Your task to perform on an android device: add a contact Image 0: 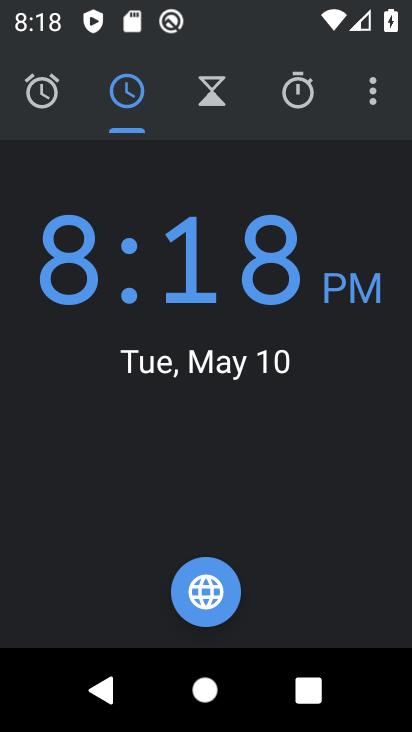
Step 0: press back button
Your task to perform on an android device: add a contact Image 1: 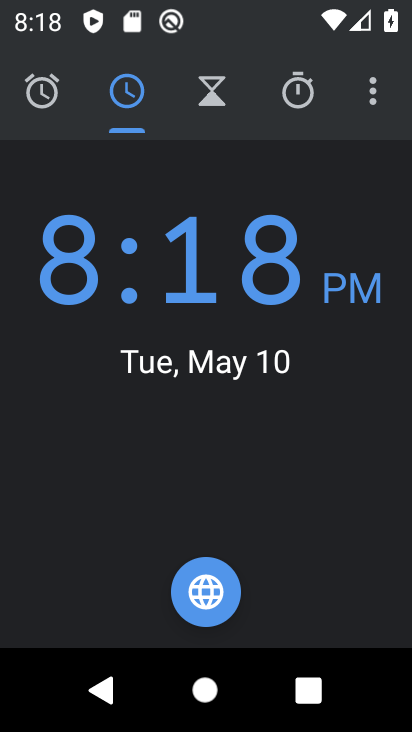
Step 1: press back button
Your task to perform on an android device: add a contact Image 2: 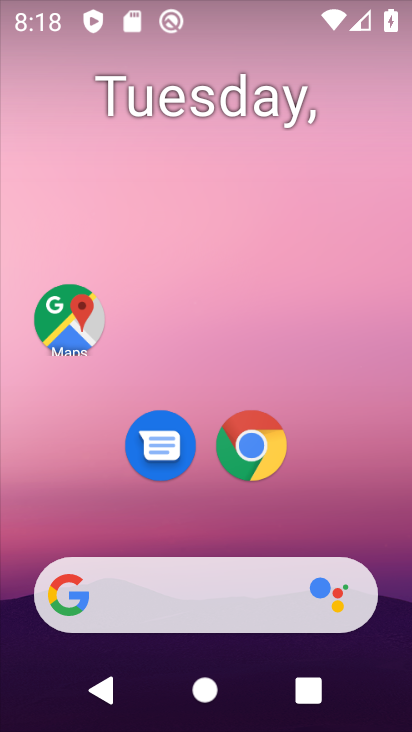
Step 2: drag from (351, 541) to (50, 25)
Your task to perform on an android device: add a contact Image 3: 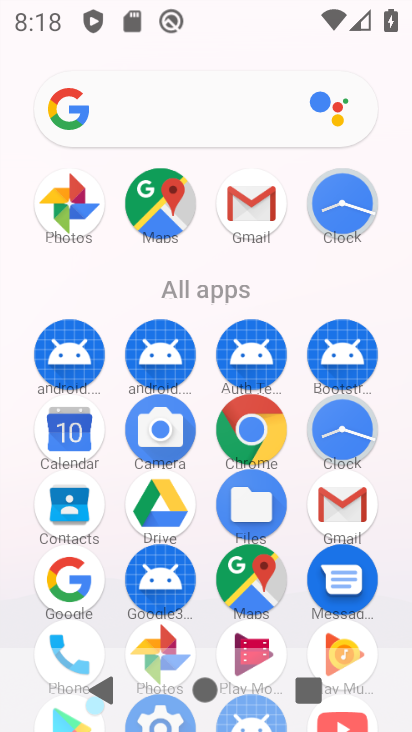
Step 3: click (74, 497)
Your task to perform on an android device: add a contact Image 4: 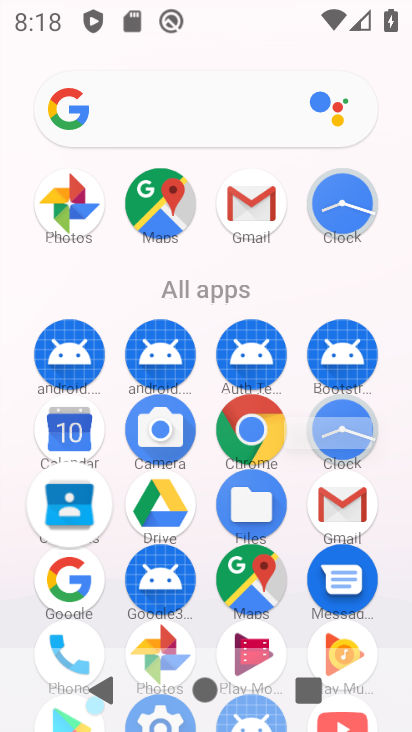
Step 4: click (67, 510)
Your task to perform on an android device: add a contact Image 5: 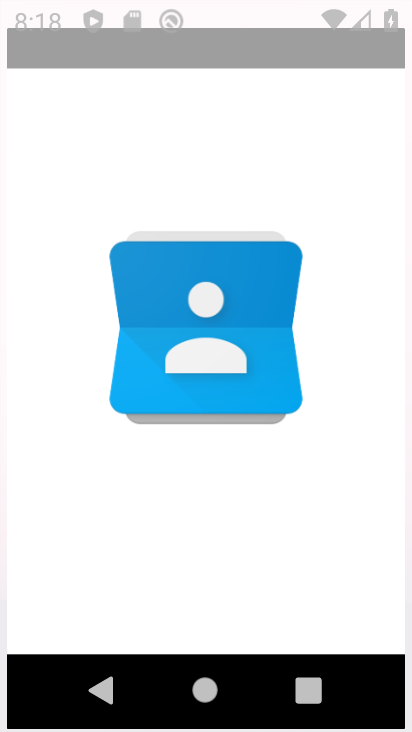
Step 5: click (67, 512)
Your task to perform on an android device: add a contact Image 6: 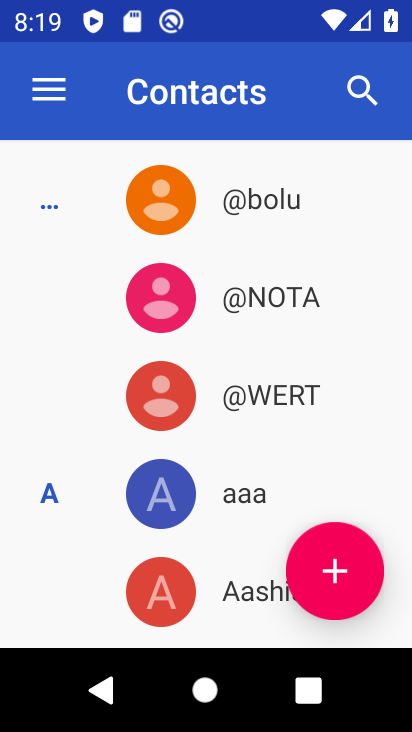
Step 6: click (335, 568)
Your task to perform on an android device: add a contact Image 7: 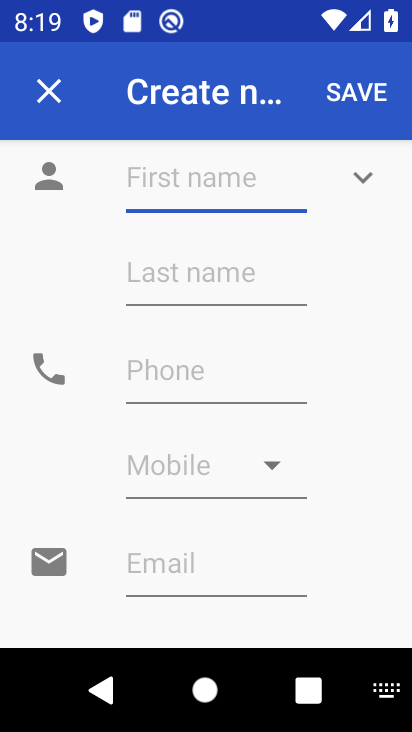
Step 7: type "new"
Your task to perform on an android device: add a contact Image 8: 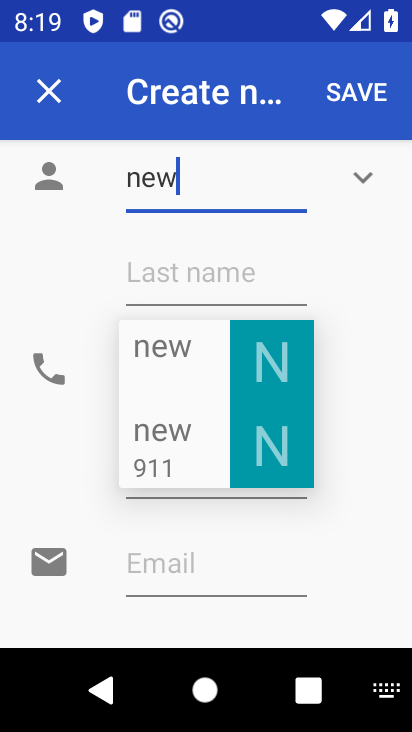
Step 8: click (168, 374)
Your task to perform on an android device: add a contact Image 9: 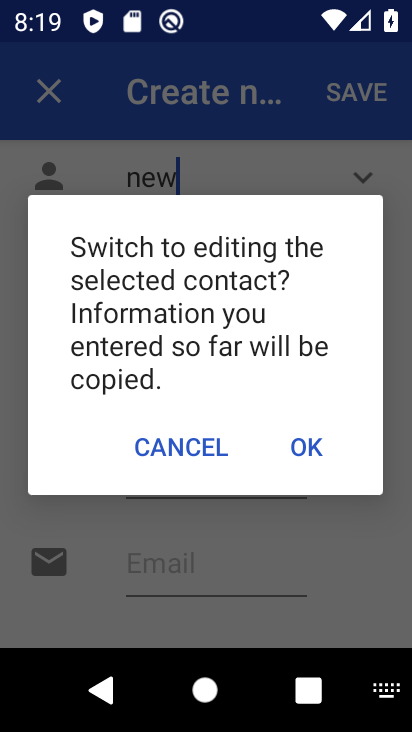
Step 9: click (313, 374)
Your task to perform on an android device: add a contact Image 10: 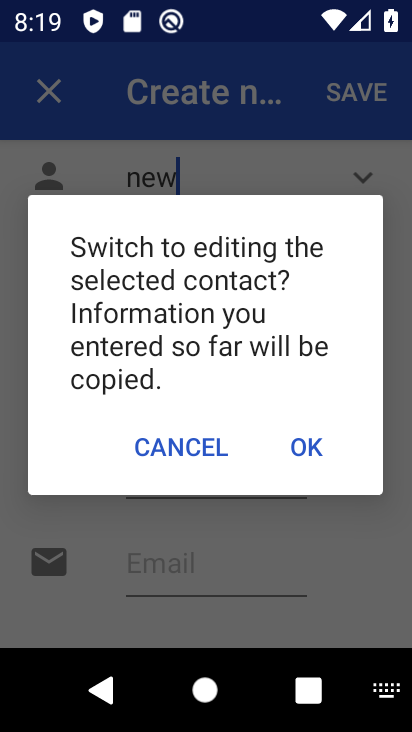
Step 10: click (296, 437)
Your task to perform on an android device: add a contact Image 11: 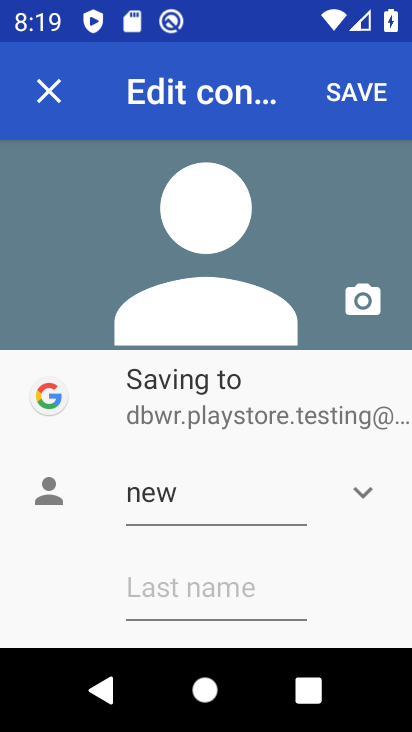
Step 11: click (362, 91)
Your task to perform on an android device: add a contact Image 12: 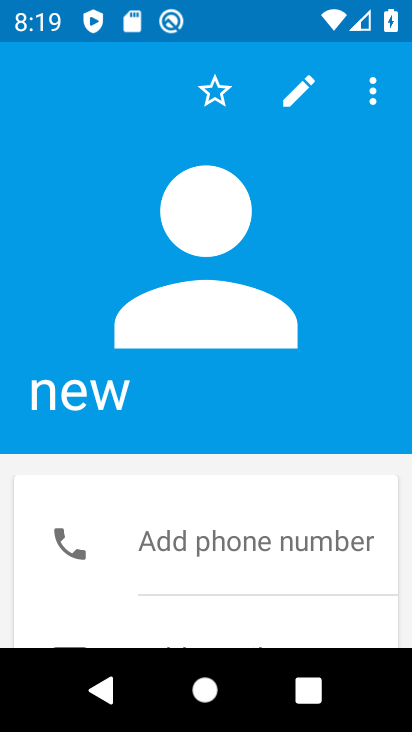
Step 12: click (206, 573)
Your task to perform on an android device: add a contact Image 13: 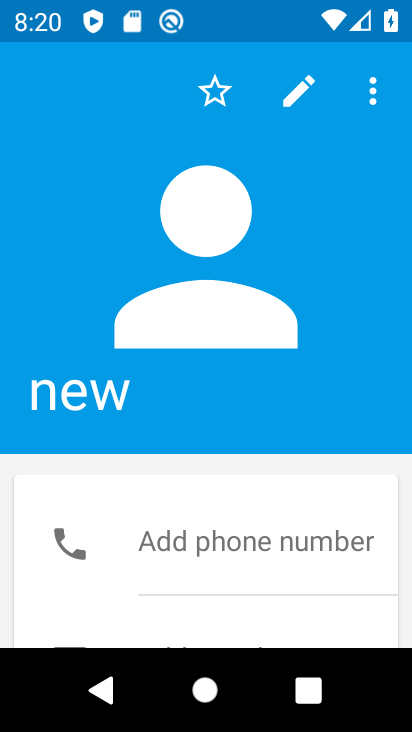
Step 13: type "9"
Your task to perform on an android device: add a contact Image 14: 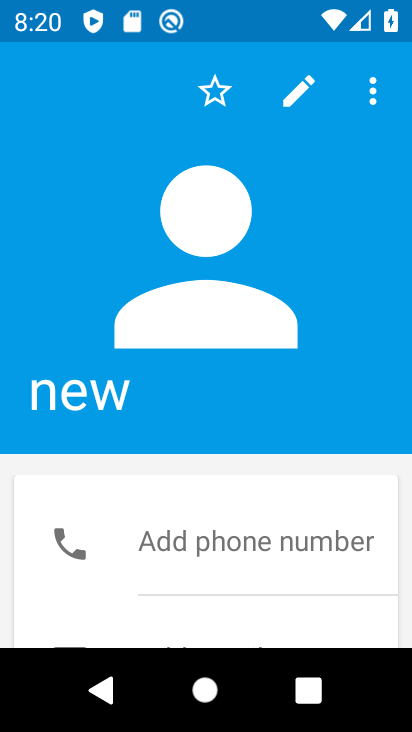
Step 14: click (234, 538)
Your task to perform on an android device: add a contact Image 15: 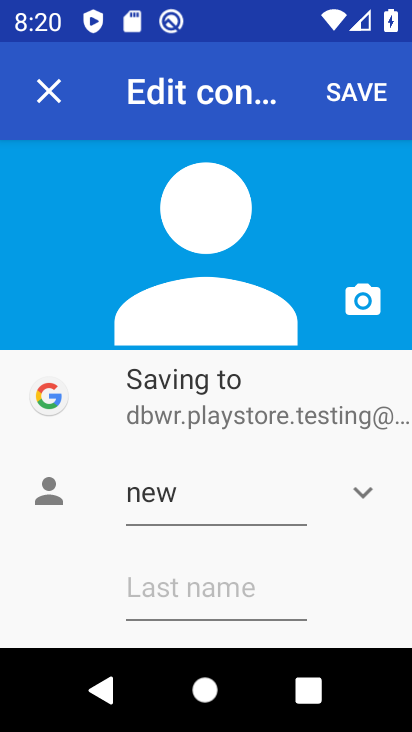
Step 15: type "9898678767"
Your task to perform on an android device: add a contact Image 16: 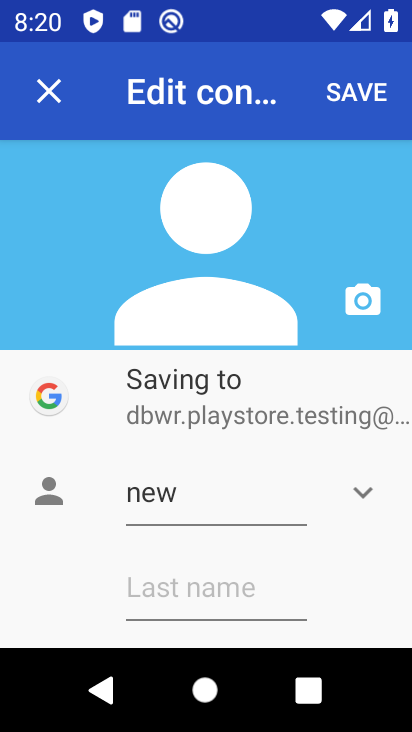
Step 16: click (48, 88)
Your task to perform on an android device: add a contact Image 17: 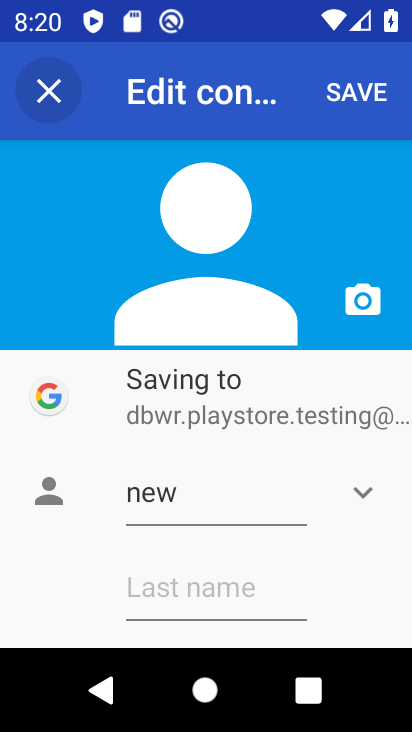
Step 17: click (48, 88)
Your task to perform on an android device: add a contact Image 18: 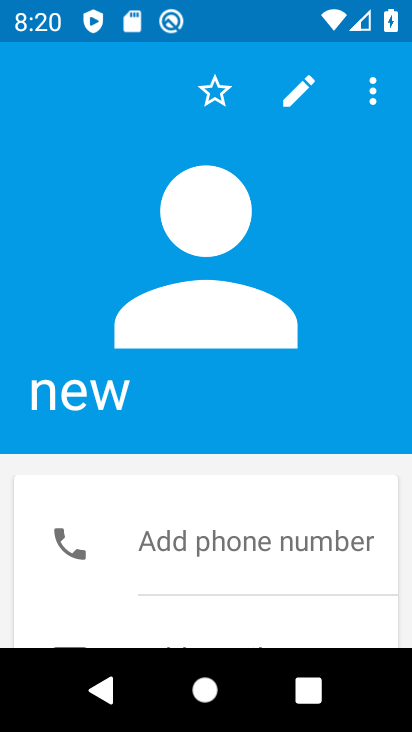
Step 18: press back button
Your task to perform on an android device: add a contact Image 19: 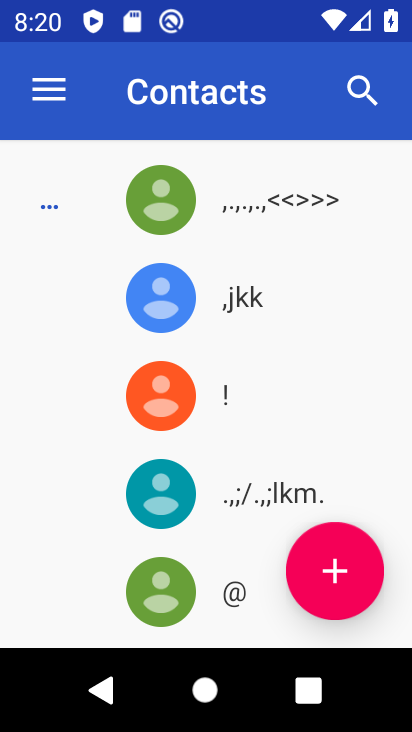
Step 19: click (332, 563)
Your task to perform on an android device: add a contact Image 20: 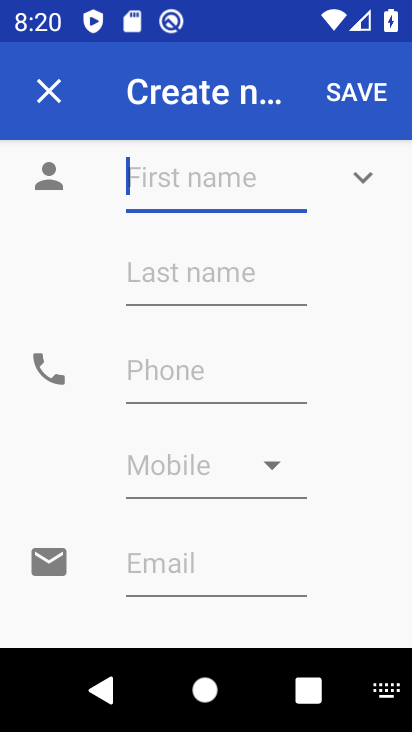
Step 20: type "hjgfuisdh"
Your task to perform on an android device: add a contact Image 21: 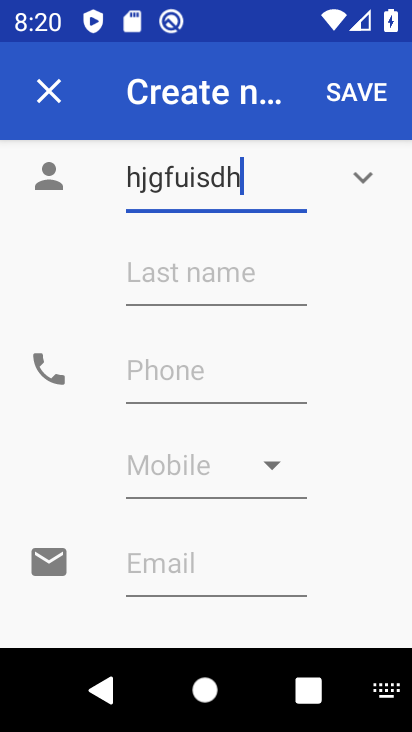
Step 21: click (168, 373)
Your task to perform on an android device: add a contact Image 22: 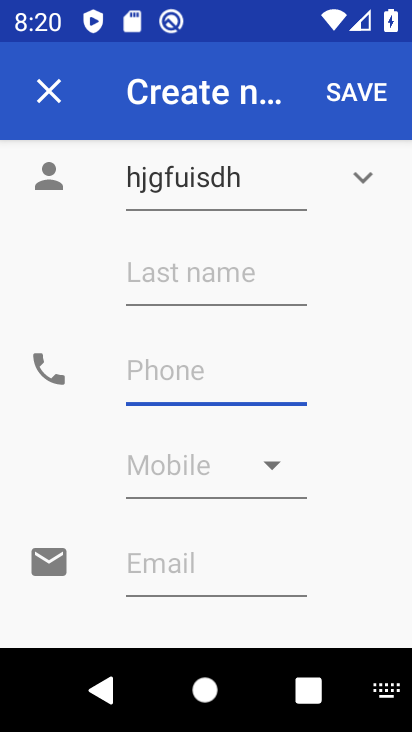
Step 22: type "98768647847748"
Your task to perform on an android device: add a contact Image 23: 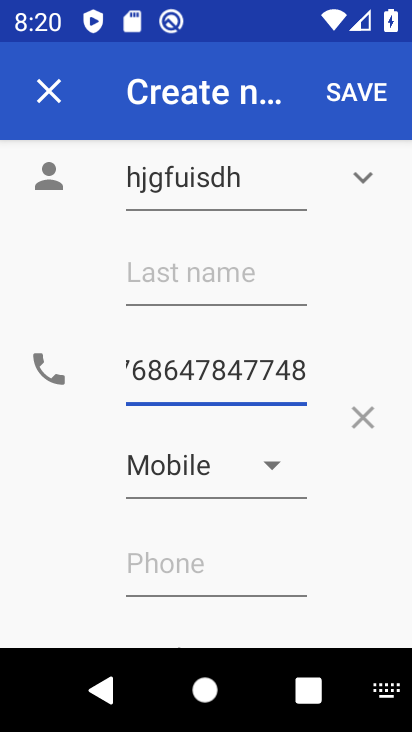
Step 23: click (371, 88)
Your task to perform on an android device: add a contact Image 24: 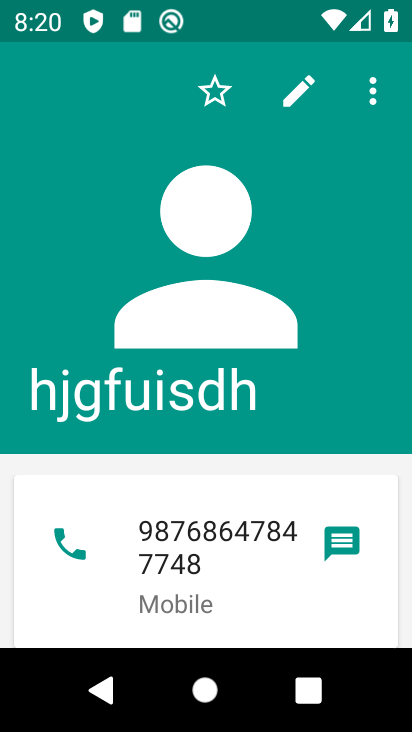
Step 24: task complete